Your task to perform on an android device: Search for Mexican restaurants on Maps Image 0: 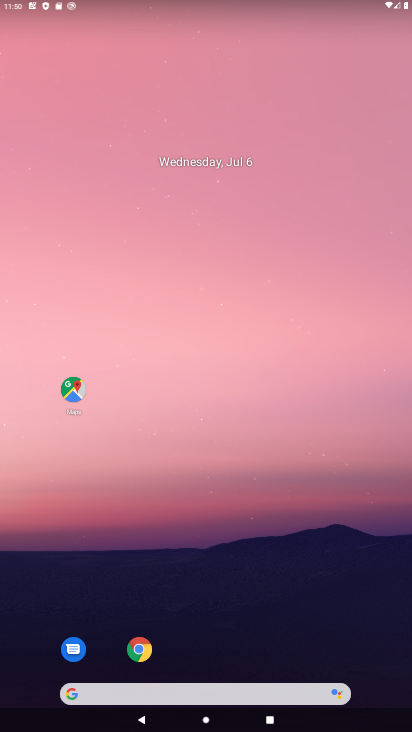
Step 0: drag from (371, 646) to (277, 24)
Your task to perform on an android device: Search for Mexican restaurants on Maps Image 1: 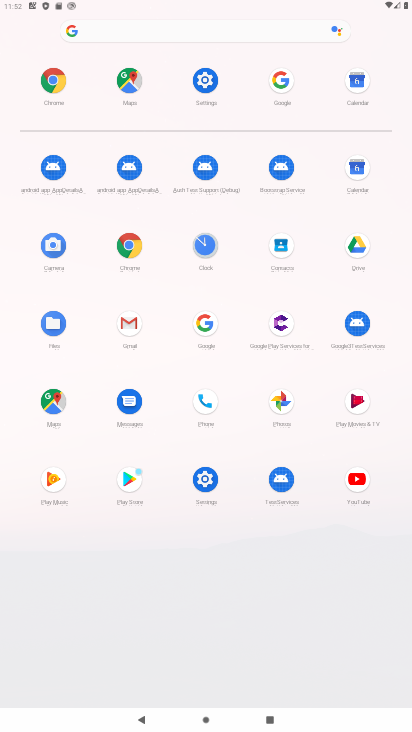
Step 1: click (57, 398)
Your task to perform on an android device: Search for Mexican restaurants on Maps Image 2: 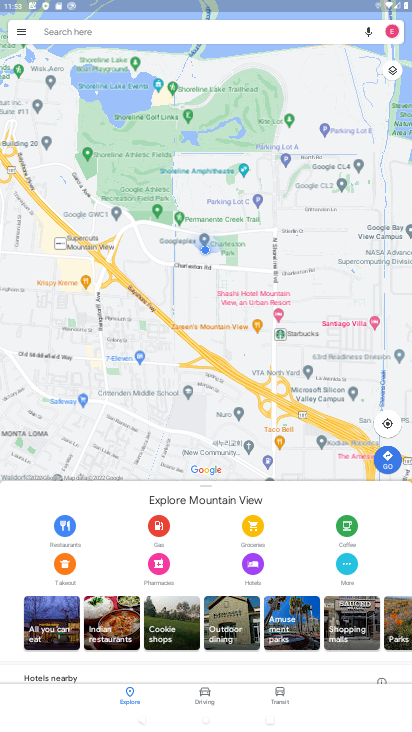
Step 2: click (126, 26)
Your task to perform on an android device: Search for Mexican restaurants on Maps Image 3: 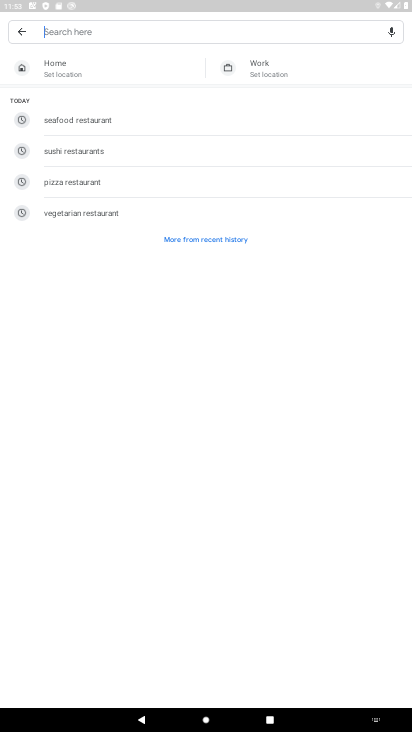
Step 3: type "mexican restaurants"
Your task to perform on an android device: Search for Mexican restaurants on Maps Image 4: 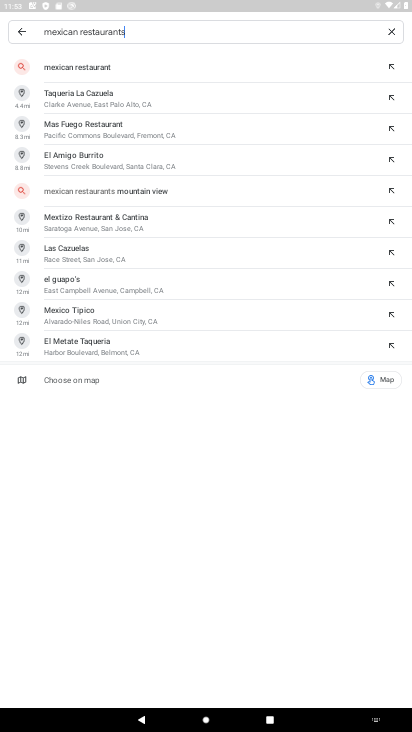
Step 4: click (91, 73)
Your task to perform on an android device: Search for Mexican restaurants on Maps Image 5: 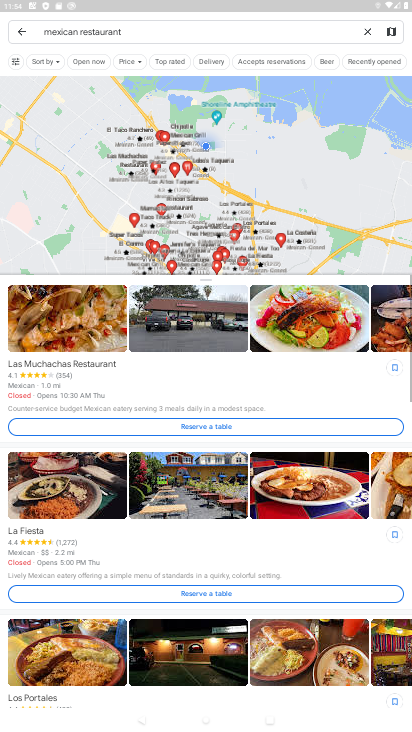
Step 5: task complete